Your task to perform on an android device: Show me popular games on the Play Store Image 0: 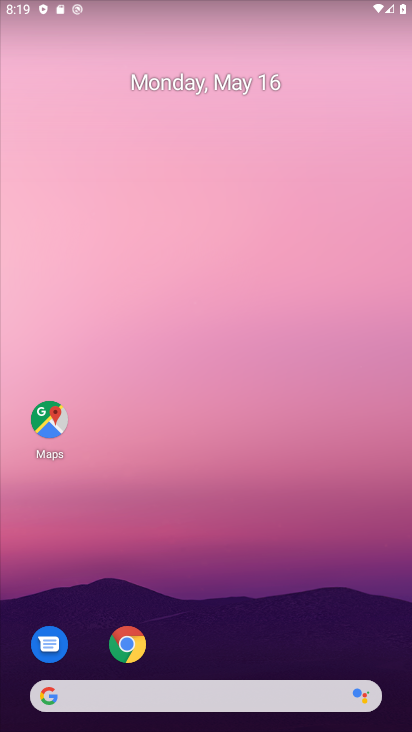
Step 0: drag from (223, 621) to (205, 113)
Your task to perform on an android device: Show me popular games on the Play Store Image 1: 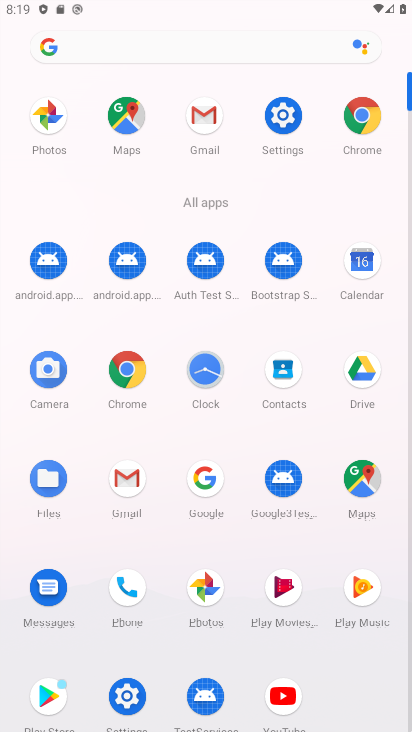
Step 1: click (50, 693)
Your task to perform on an android device: Show me popular games on the Play Store Image 2: 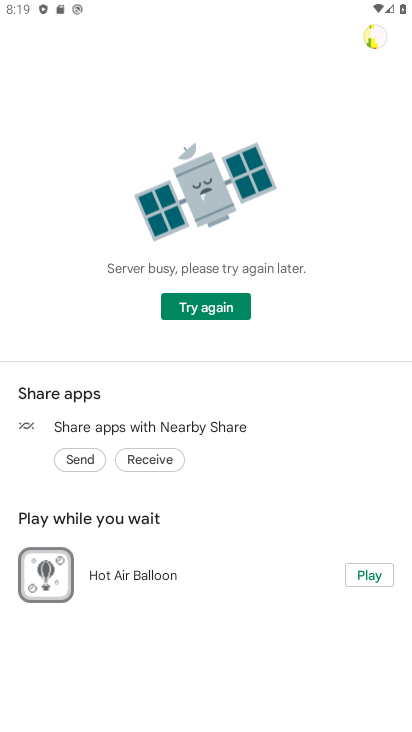
Step 2: click (221, 308)
Your task to perform on an android device: Show me popular games on the Play Store Image 3: 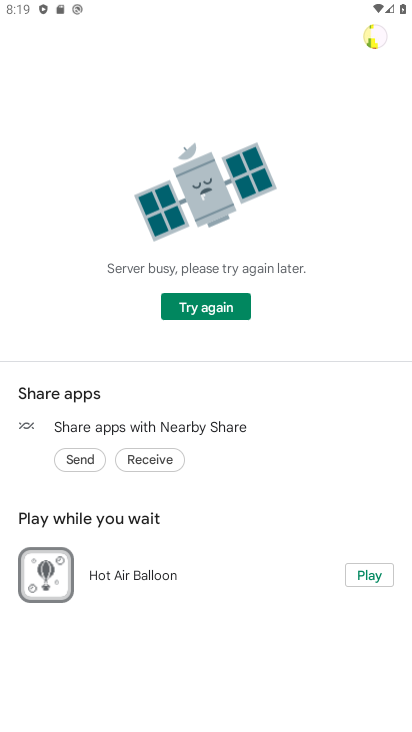
Step 3: click (221, 308)
Your task to perform on an android device: Show me popular games on the Play Store Image 4: 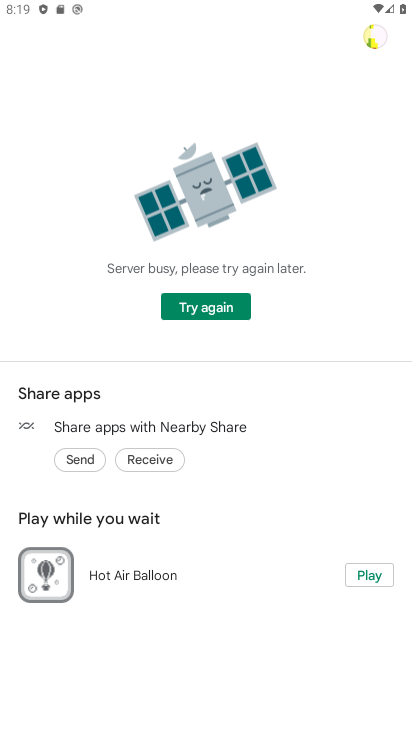
Step 4: task complete